Your task to perform on an android device: Search for Mexican restaurants on Maps Image 0: 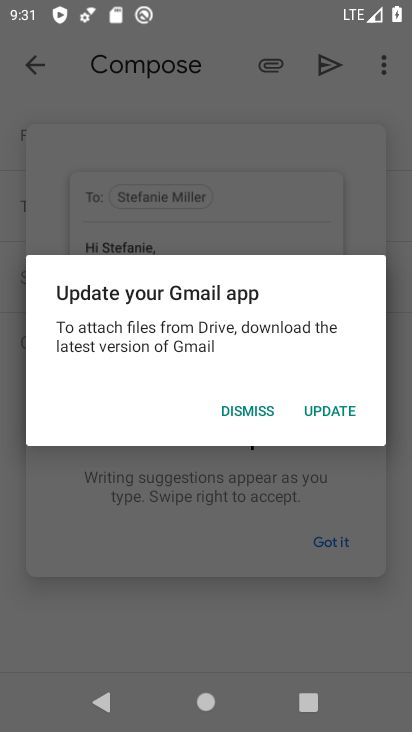
Step 0: press home button
Your task to perform on an android device: Search for Mexican restaurants on Maps Image 1: 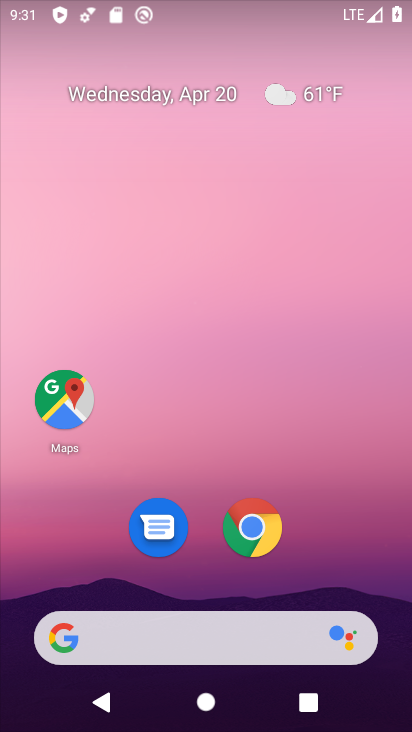
Step 1: click (66, 408)
Your task to perform on an android device: Search for Mexican restaurants on Maps Image 2: 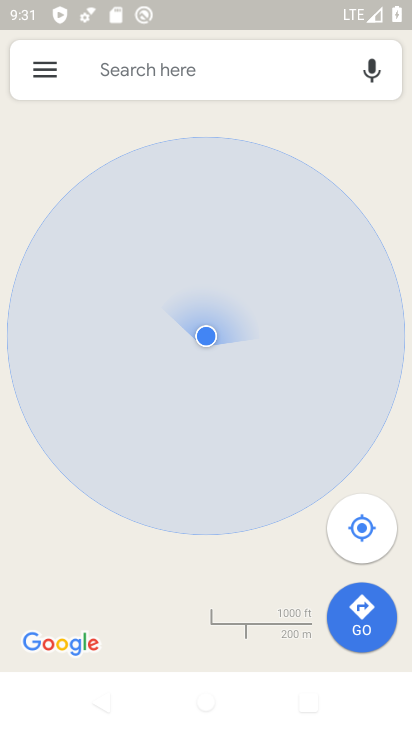
Step 2: click (190, 66)
Your task to perform on an android device: Search for Mexican restaurants on Maps Image 3: 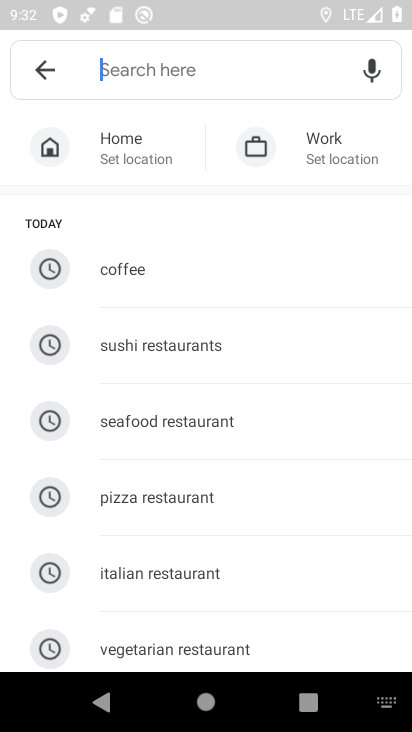
Step 3: type "Mexican restaurants"
Your task to perform on an android device: Search for Mexican restaurants on Maps Image 4: 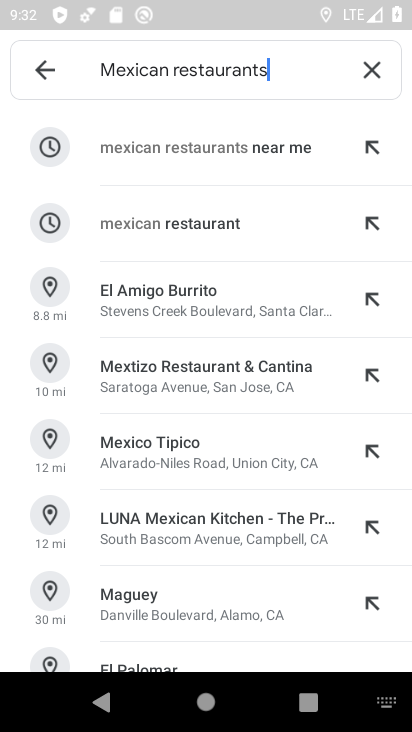
Step 4: click (190, 217)
Your task to perform on an android device: Search for Mexican restaurants on Maps Image 5: 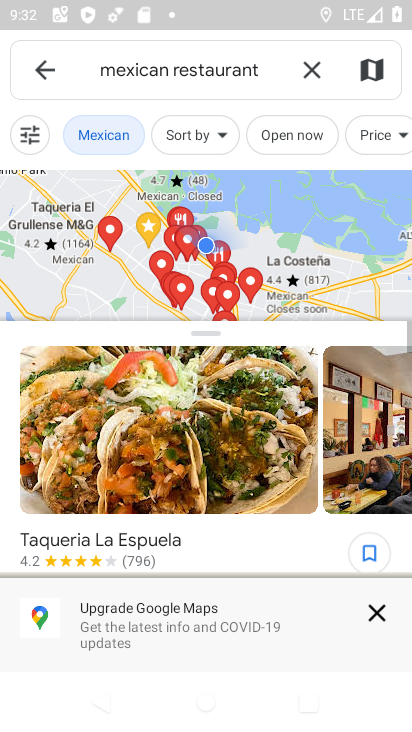
Step 5: task complete